Your task to perform on an android device: Open battery settings Image 0: 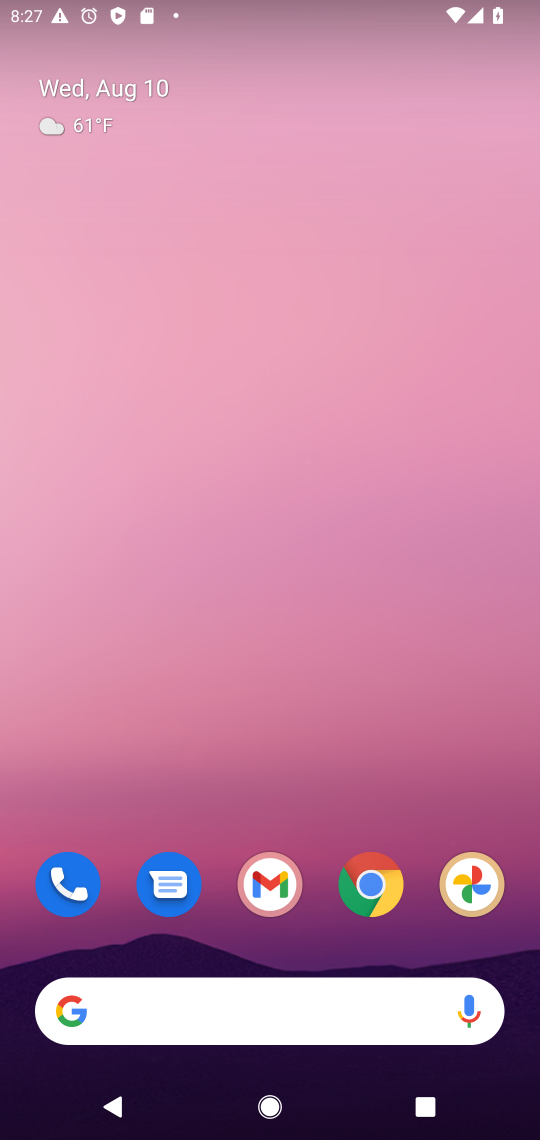
Step 0: drag from (52, 1082) to (189, 449)
Your task to perform on an android device: Open battery settings Image 1: 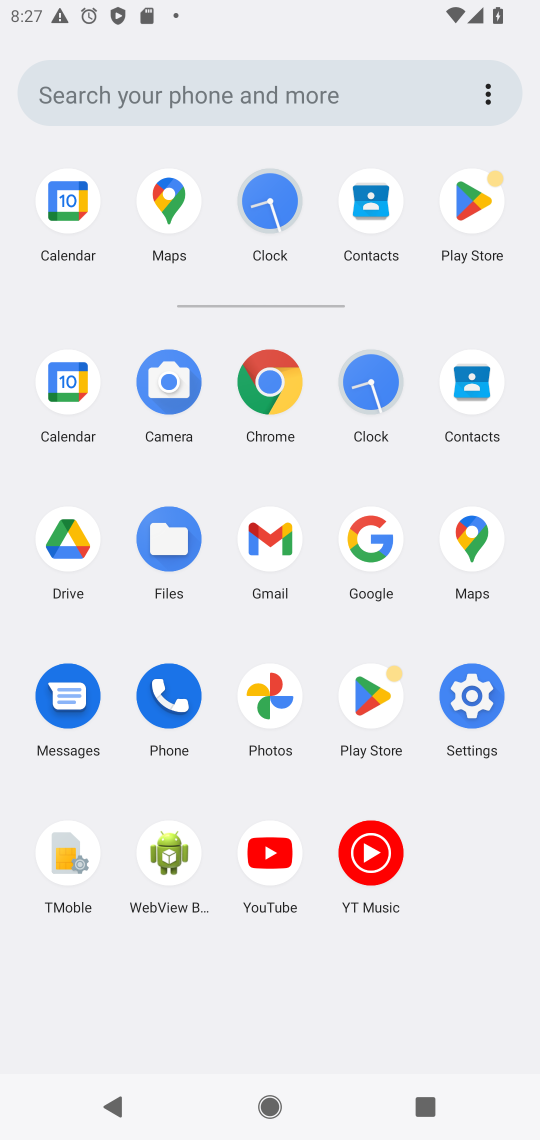
Step 1: click (466, 687)
Your task to perform on an android device: Open battery settings Image 2: 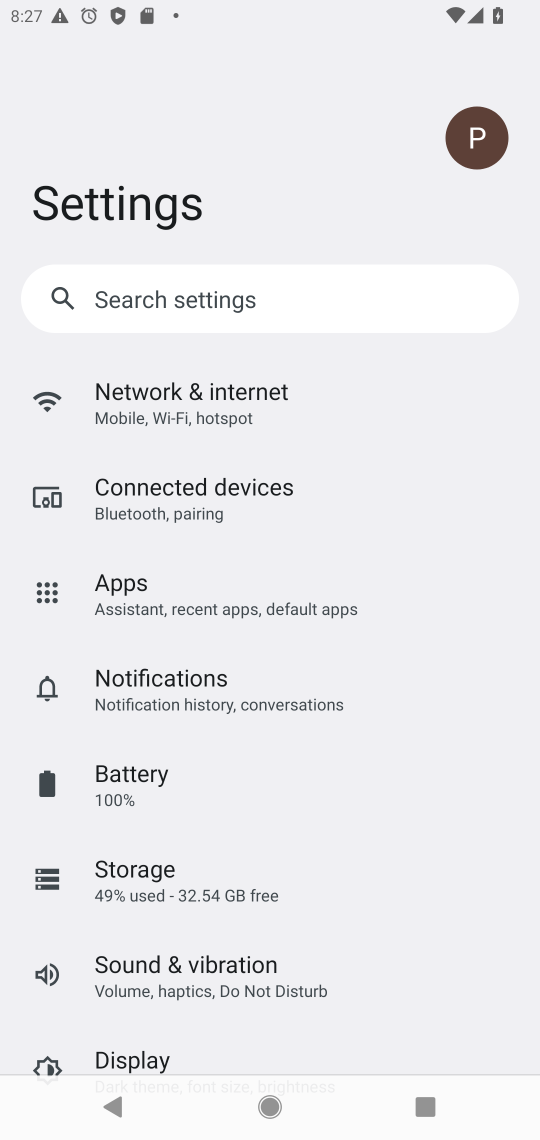
Step 2: click (130, 791)
Your task to perform on an android device: Open battery settings Image 3: 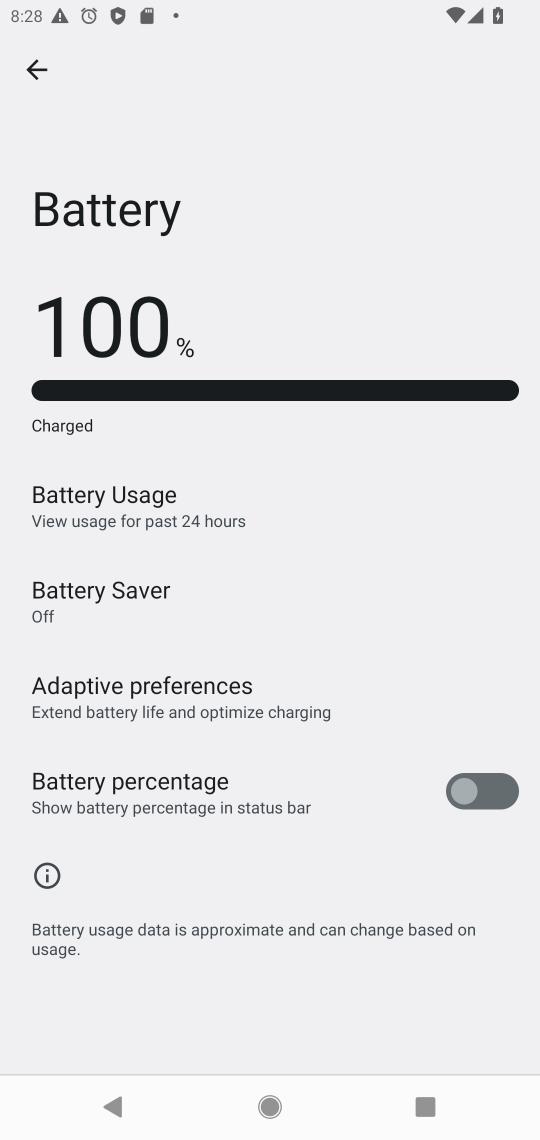
Step 3: task complete